Your task to perform on an android device: Open Google Chrome Image 0: 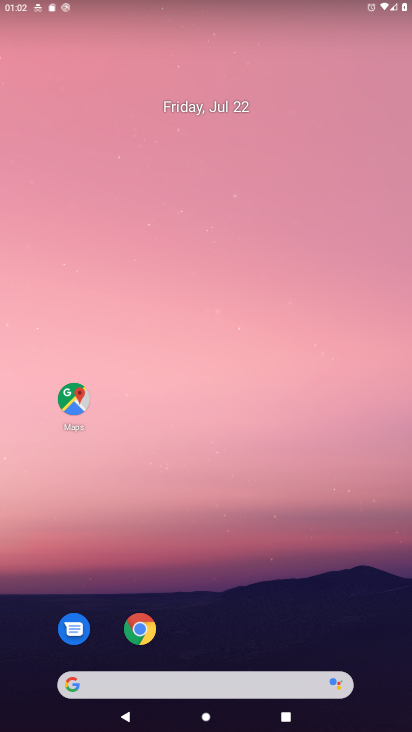
Step 0: drag from (250, 649) to (234, 141)
Your task to perform on an android device: Open Google Chrome Image 1: 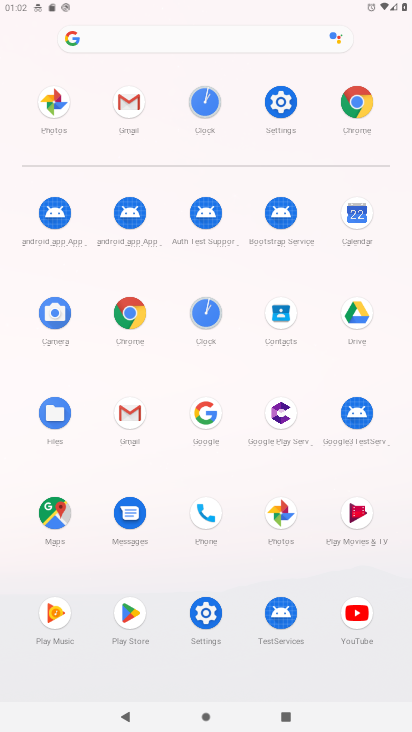
Step 1: click (204, 417)
Your task to perform on an android device: Open Google Chrome Image 2: 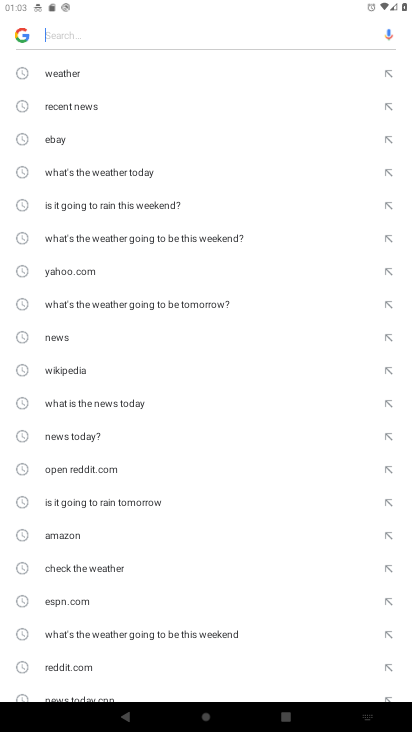
Step 2: task complete